Your task to perform on an android device: change your default location settings in chrome Image 0: 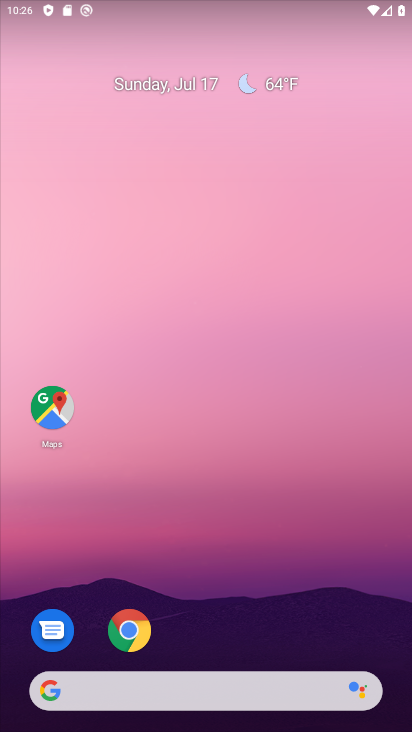
Step 0: click (130, 627)
Your task to perform on an android device: change your default location settings in chrome Image 1: 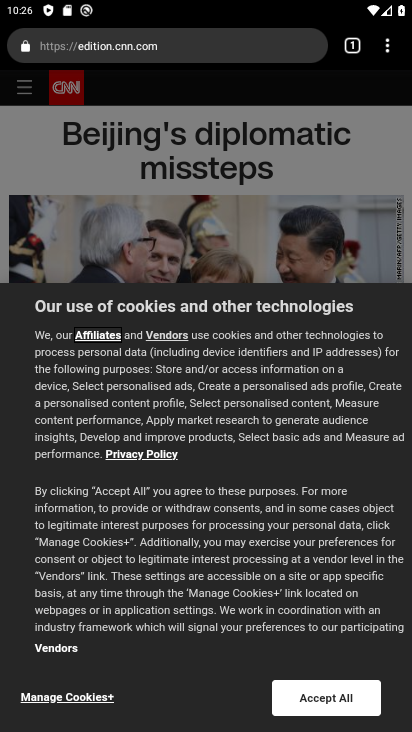
Step 1: click (390, 57)
Your task to perform on an android device: change your default location settings in chrome Image 2: 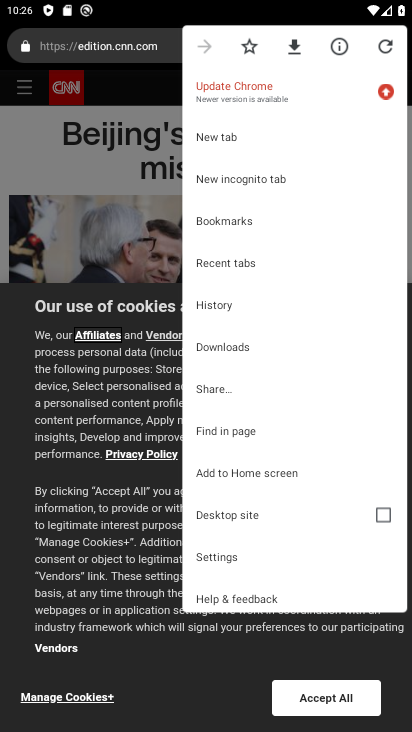
Step 2: click (230, 558)
Your task to perform on an android device: change your default location settings in chrome Image 3: 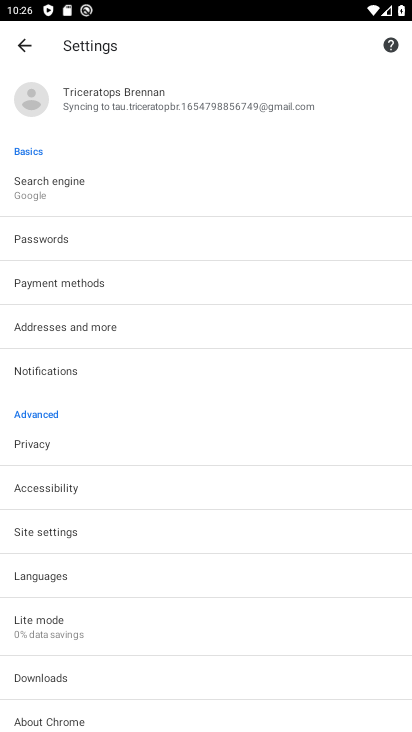
Step 3: click (64, 530)
Your task to perform on an android device: change your default location settings in chrome Image 4: 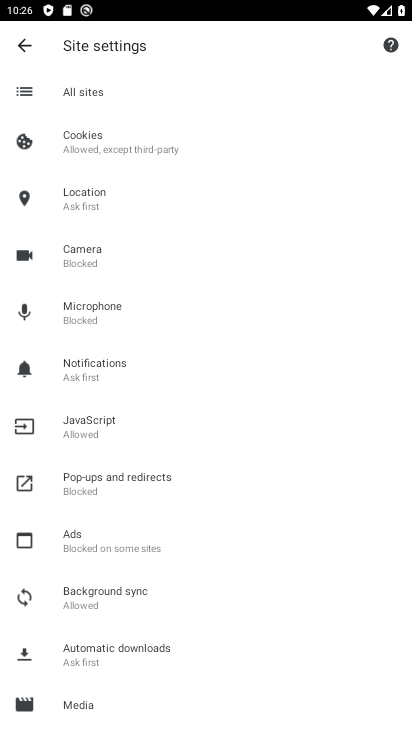
Step 4: click (77, 190)
Your task to perform on an android device: change your default location settings in chrome Image 5: 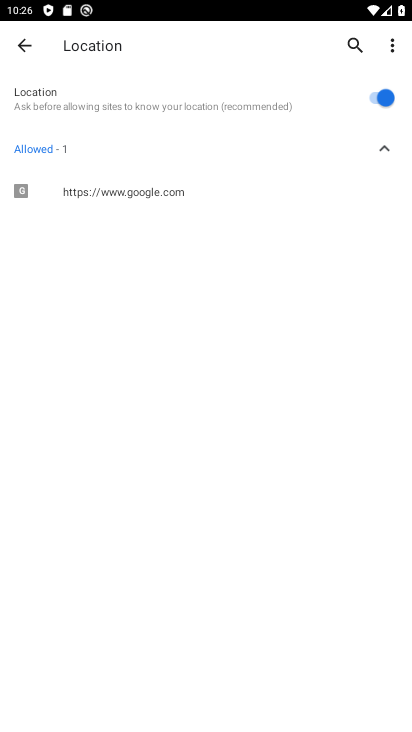
Step 5: click (367, 96)
Your task to perform on an android device: change your default location settings in chrome Image 6: 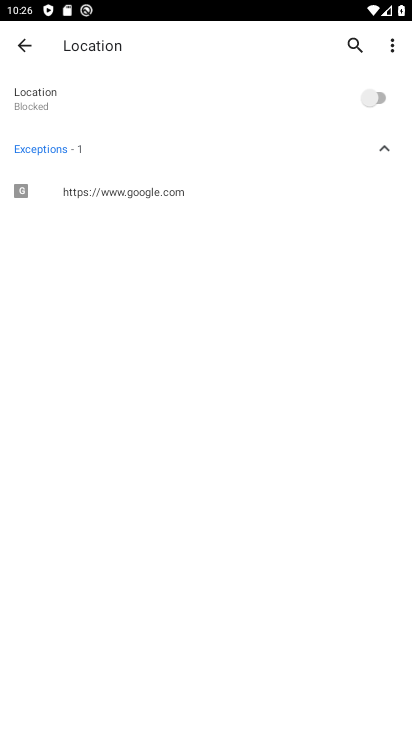
Step 6: task complete